Your task to perform on an android device: Go to display settings Image 0: 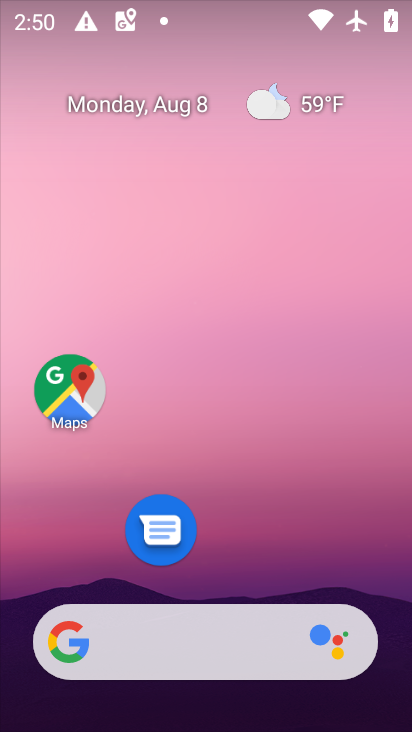
Step 0: drag from (213, 601) to (213, 98)
Your task to perform on an android device: Go to display settings Image 1: 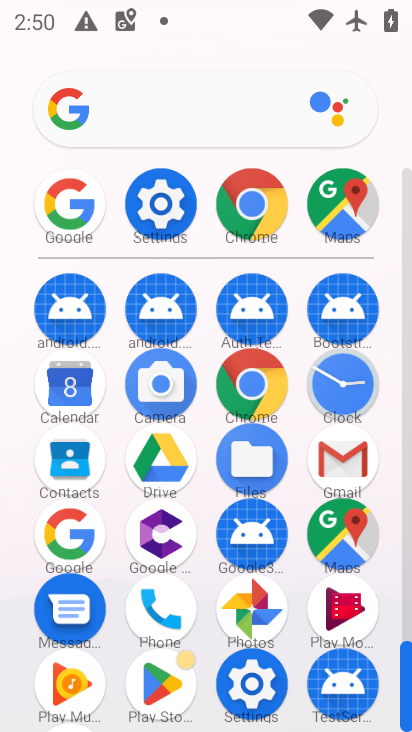
Step 1: click (159, 197)
Your task to perform on an android device: Go to display settings Image 2: 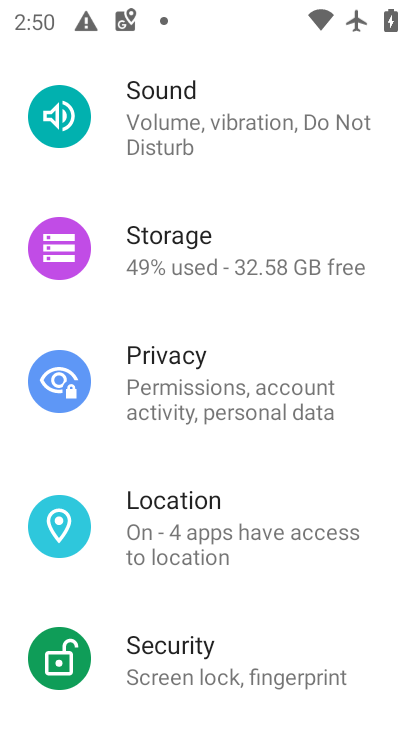
Step 2: drag from (191, 109) to (167, 567)
Your task to perform on an android device: Go to display settings Image 3: 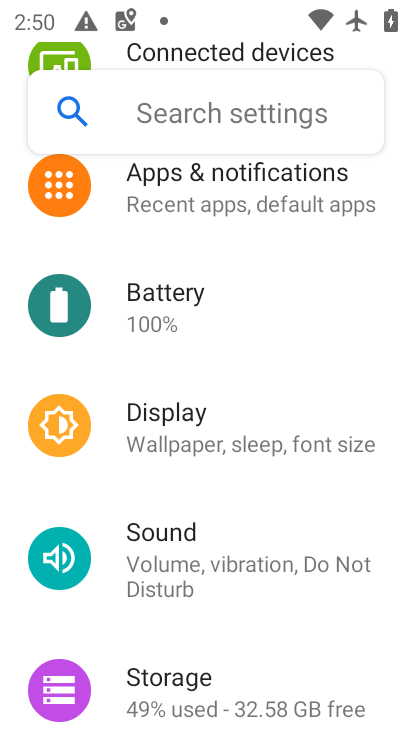
Step 3: click (164, 440)
Your task to perform on an android device: Go to display settings Image 4: 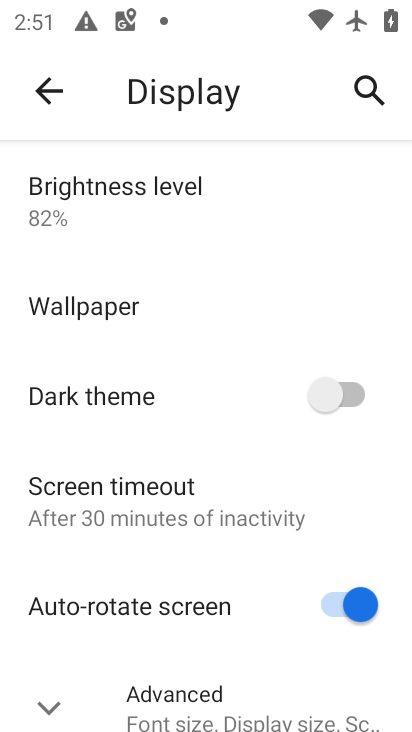
Step 4: task complete